Your task to perform on an android device: Do I have any events tomorrow? Image 0: 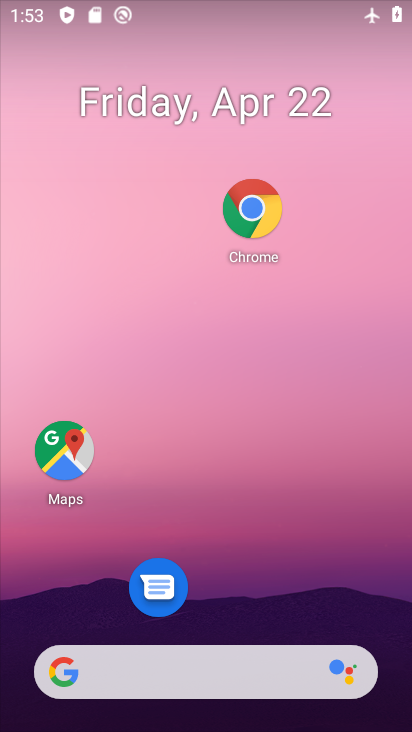
Step 0: drag from (239, 577) to (263, 132)
Your task to perform on an android device: Do I have any events tomorrow? Image 1: 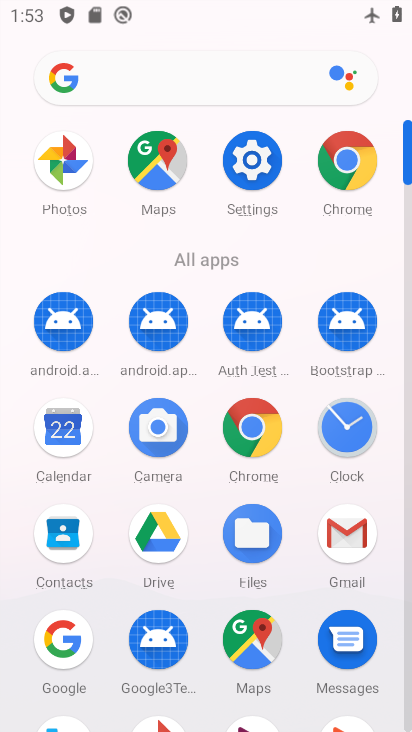
Step 1: click (49, 422)
Your task to perform on an android device: Do I have any events tomorrow? Image 2: 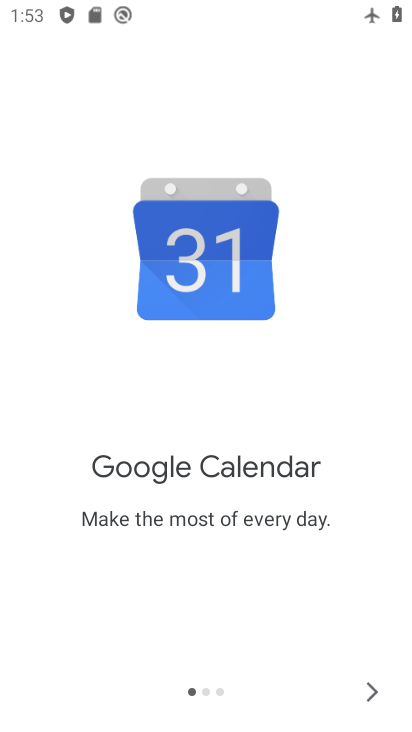
Step 2: click (211, 390)
Your task to perform on an android device: Do I have any events tomorrow? Image 3: 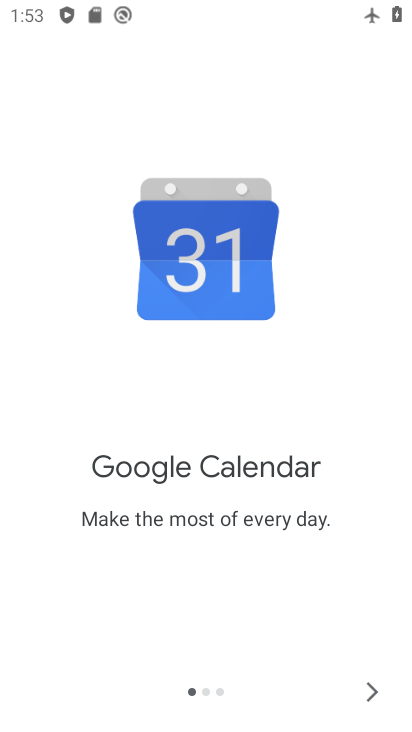
Step 3: click (365, 697)
Your task to perform on an android device: Do I have any events tomorrow? Image 4: 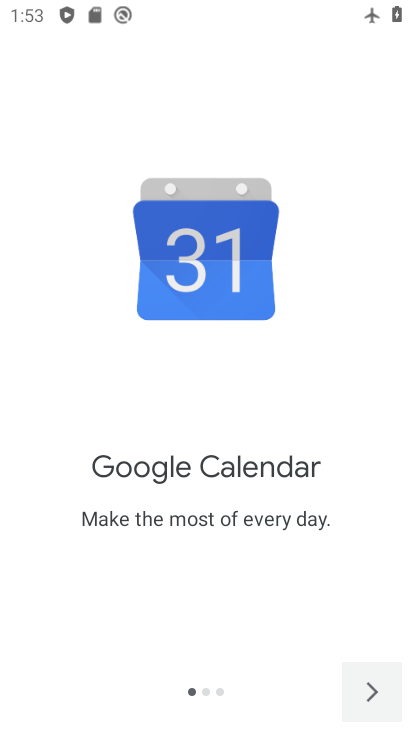
Step 4: click (366, 697)
Your task to perform on an android device: Do I have any events tomorrow? Image 5: 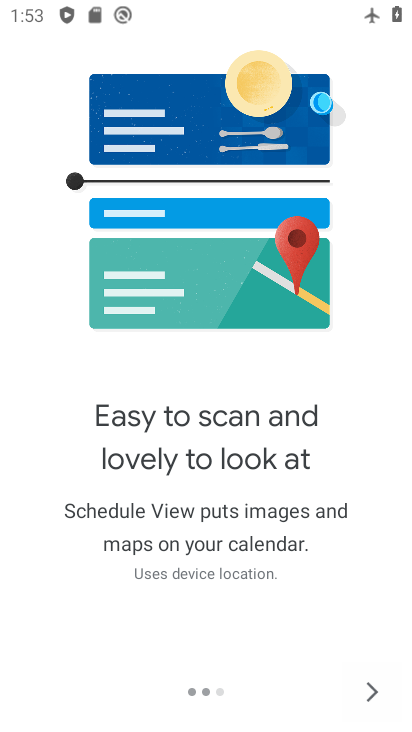
Step 5: click (366, 697)
Your task to perform on an android device: Do I have any events tomorrow? Image 6: 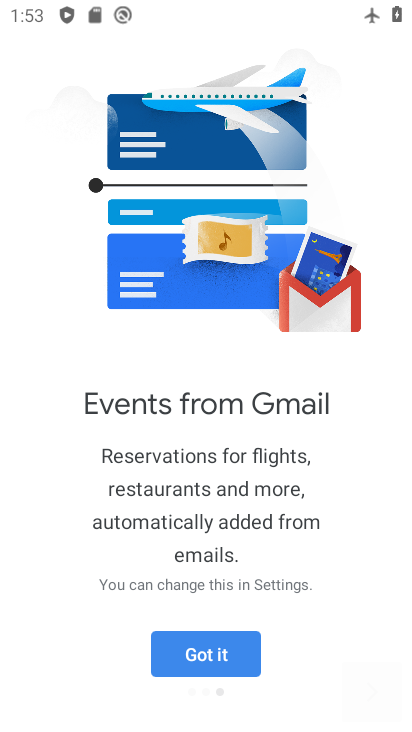
Step 6: click (366, 697)
Your task to perform on an android device: Do I have any events tomorrow? Image 7: 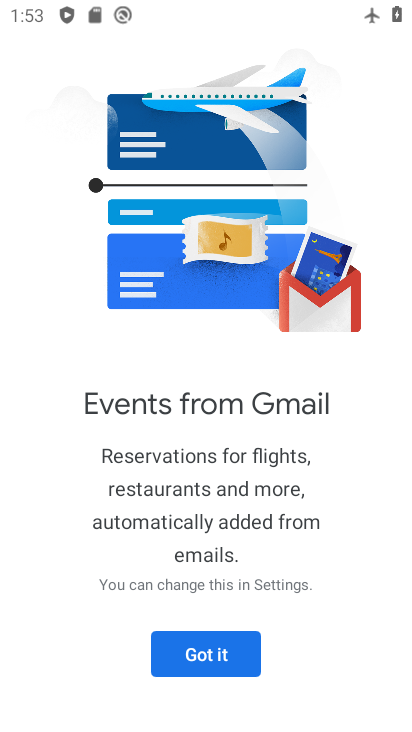
Step 7: click (132, 626)
Your task to perform on an android device: Do I have any events tomorrow? Image 8: 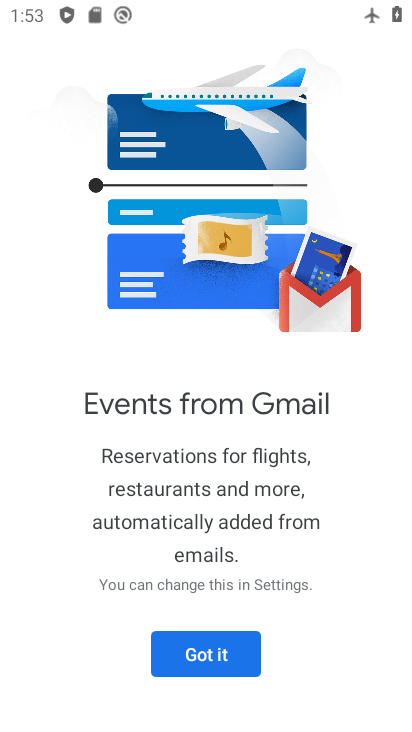
Step 8: click (179, 657)
Your task to perform on an android device: Do I have any events tomorrow? Image 9: 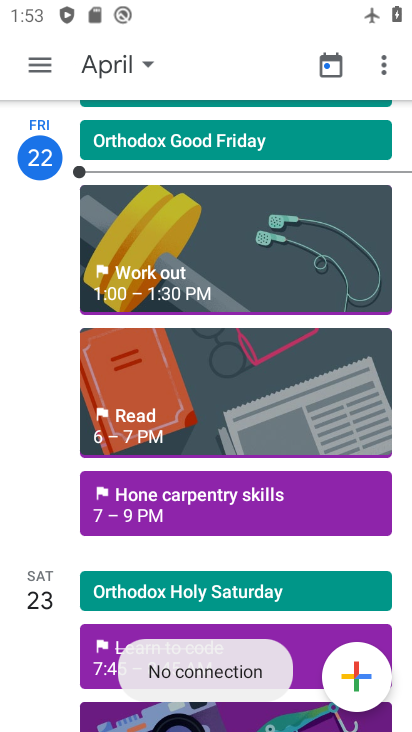
Step 9: drag from (157, 602) to (386, 111)
Your task to perform on an android device: Do I have any events tomorrow? Image 10: 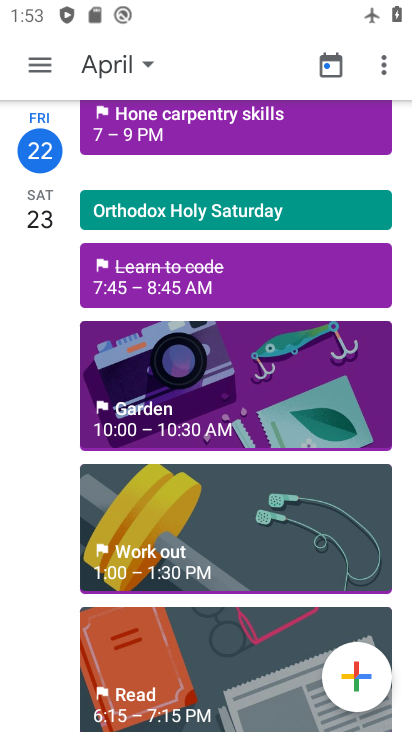
Step 10: drag from (221, 221) to (283, 713)
Your task to perform on an android device: Do I have any events tomorrow? Image 11: 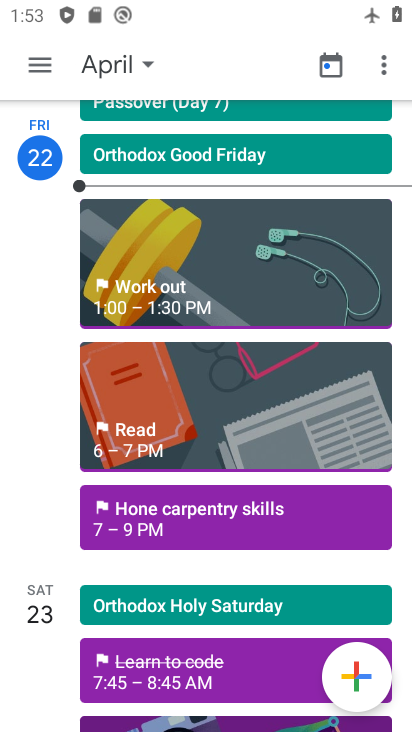
Step 11: click (122, 55)
Your task to perform on an android device: Do I have any events tomorrow? Image 12: 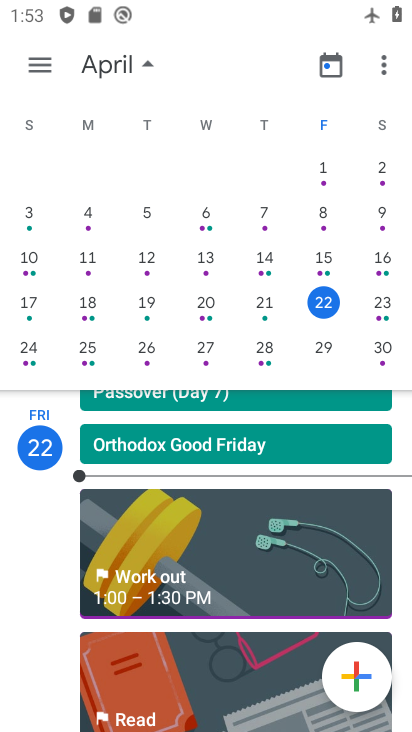
Step 12: click (378, 309)
Your task to perform on an android device: Do I have any events tomorrow? Image 13: 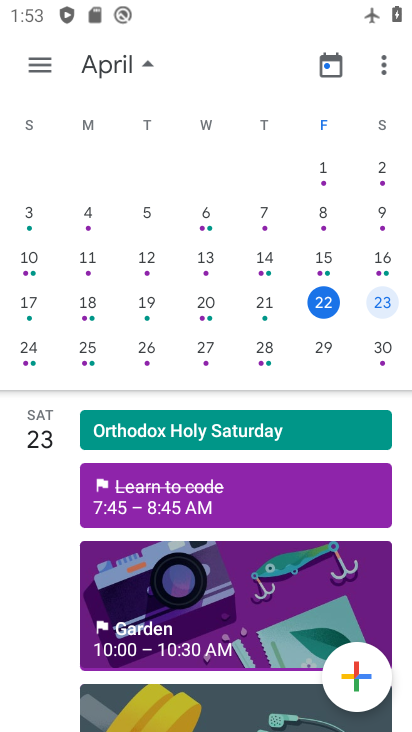
Step 13: task complete